Your task to perform on an android device: stop showing notifications on the lock screen Image 0: 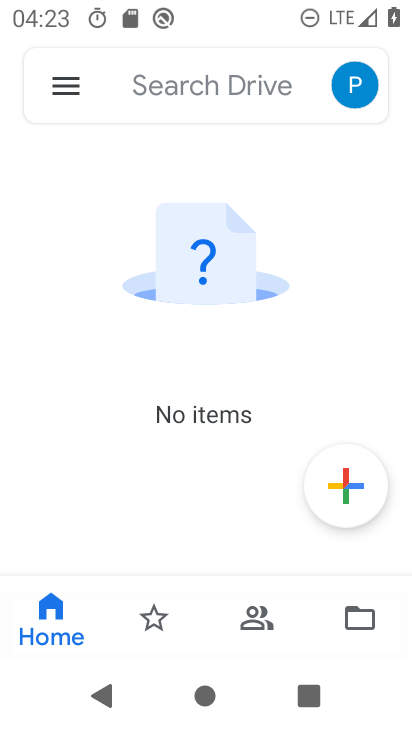
Step 0: press back button
Your task to perform on an android device: stop showing notifications on the lock screen Image 1: 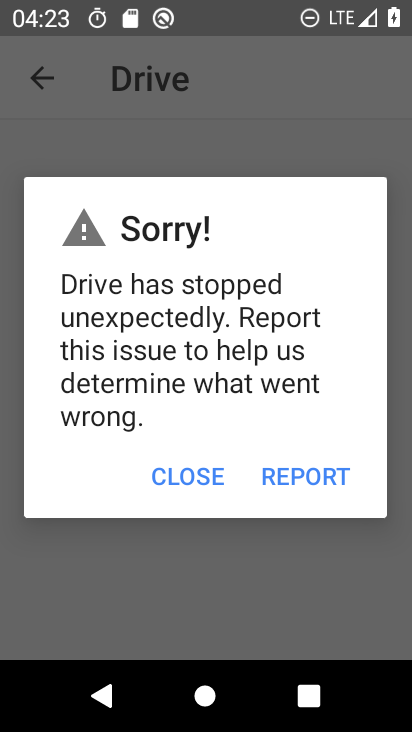
Step 1: click (176, 472)
Your task to perform on an android device: stop showing notifications on the lock screen Image 2: 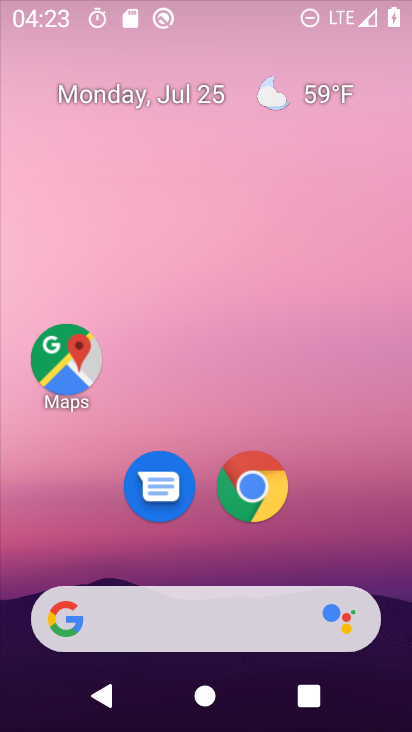
Step 2: drag from (170, 519) to (297, 7)
Your task to perform on an android device: stop showing notifications on the lock screen Image 3: 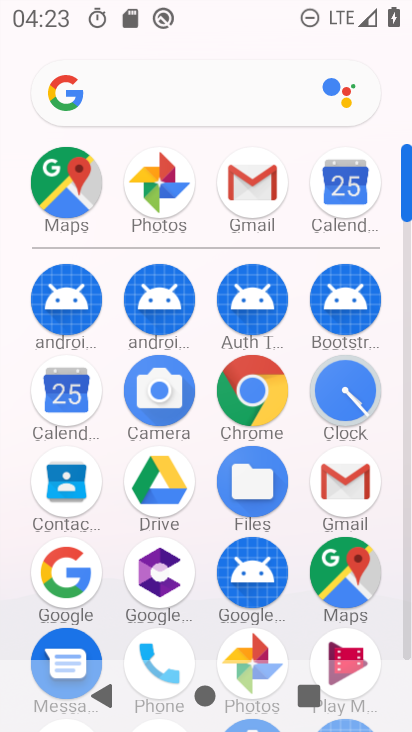
Step 3: drag from (181, 576) to (310, 34)
Your task to perform on an android device: stop showing notifications on the lock screen Image 4: 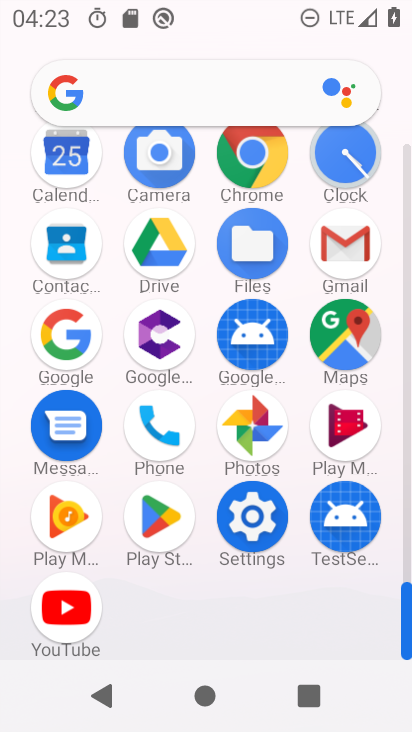
Step 4: click (250, 521)
Your task to perform on an android device: stop showing notifications on the lock screen Image 5: 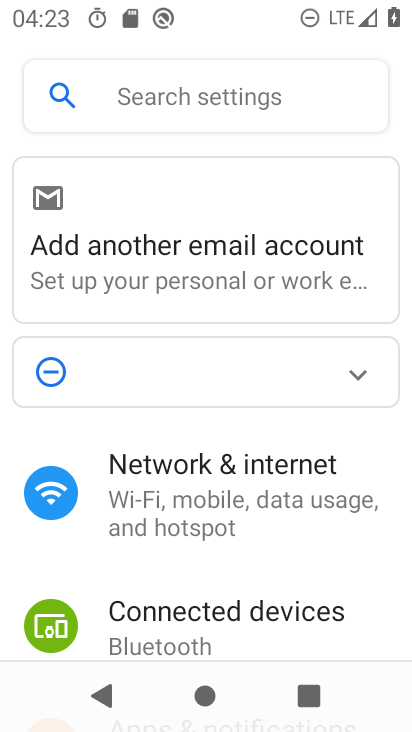
Step 5: drag from (162, 602) to (210, 336)
Your task to perform on an android device: stop showing notifications on the lock screen Image 6: 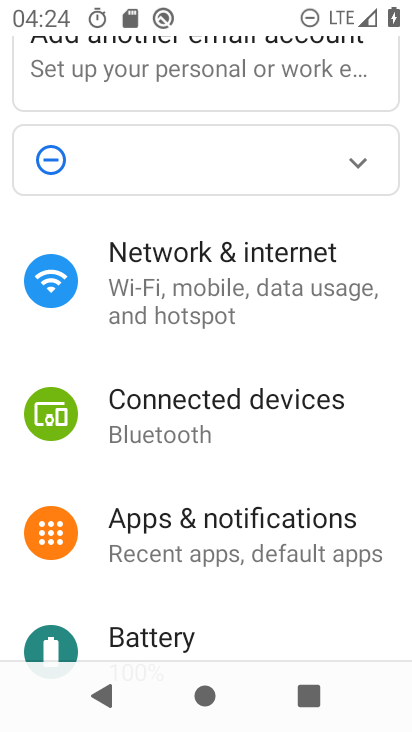
Step 6: drag from (182, 565) to (297, 432)
Your task to perform on an android device: stop showing notifications on the lock screen Image 7: 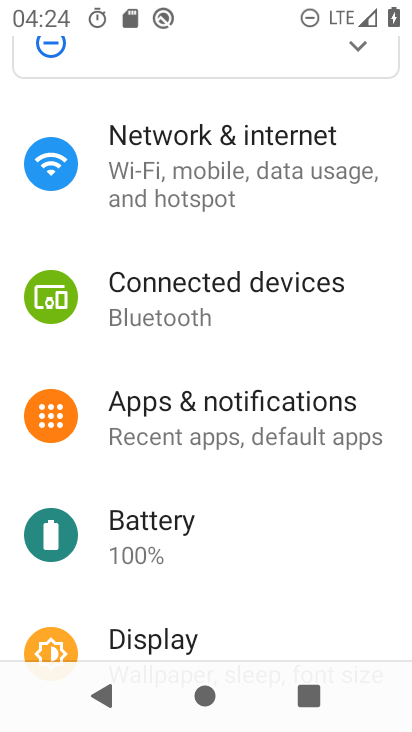
Step 7: click (227, 402)
Your task to perform on an android device: stop showing notifications on the lock screen Image 8: 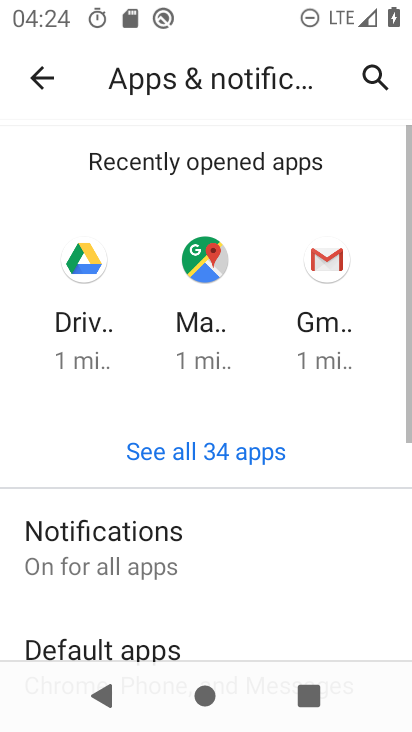
Step 8: drag from (159, 537) to (279, 166)
Your task to perform on an android device: stop showing notifications on the lock screen Image 9: 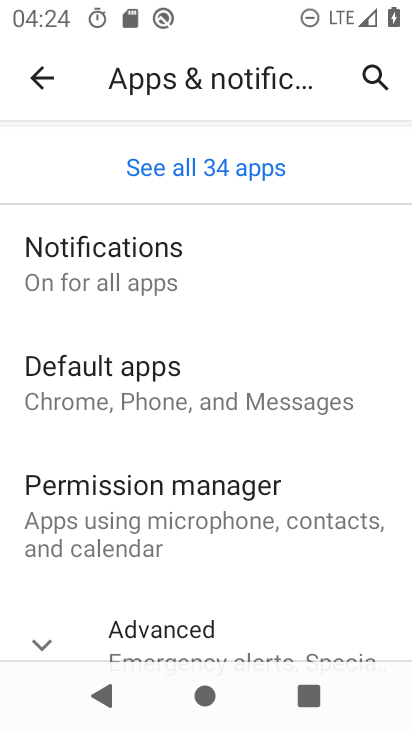
Step 9: click (113, 243)
Your task to perform on an android device: stop showing notifications on the lock screen Image 10: 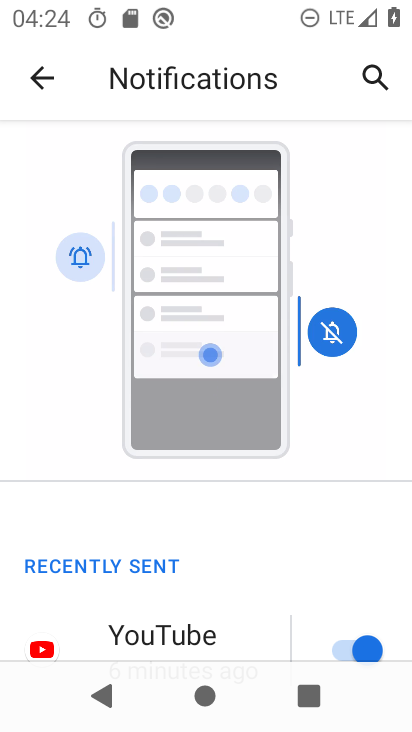
Step 10: drag from (163, 596) to (289, 84)
Your task to perform on an android device: stop showing notifications on the lock screen Image 11: 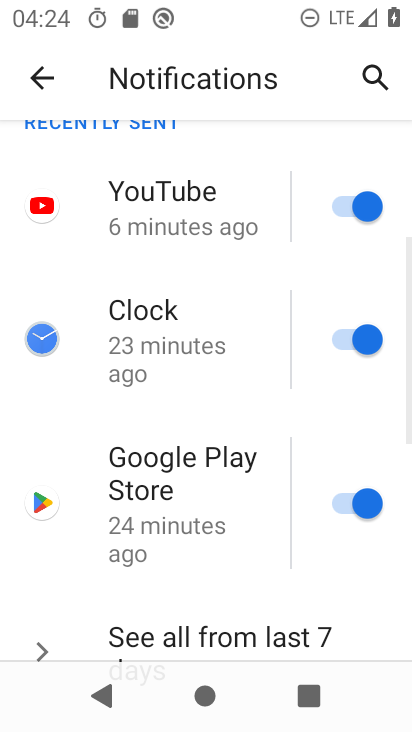
Step 11: drag from (173, 564) to (295, 82)
Your task to perform on an android device: stop showing notifications on the lock screen Image 12: 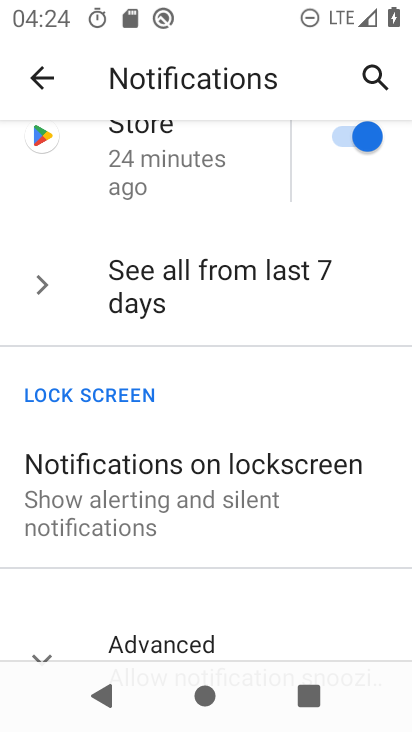
Step 12: click (178, 496)
Your task to perform on an android device: stop showing notifications on the lock screen Image 13: 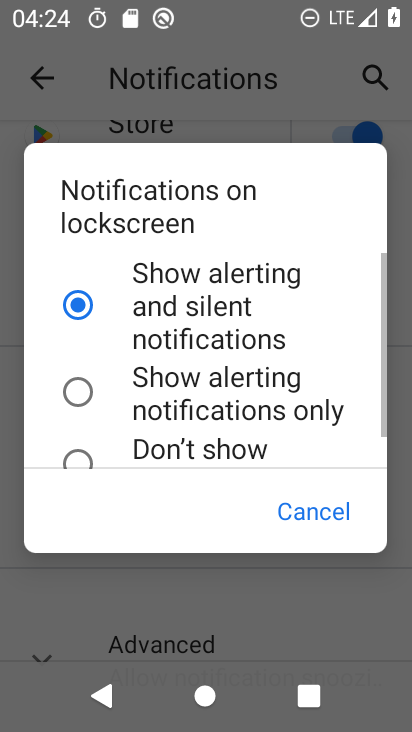
Step 13: drag from (171, 443) to (271, 124)
Your task to perform on an android device: stop showing notifications on the lock screen Image 14: 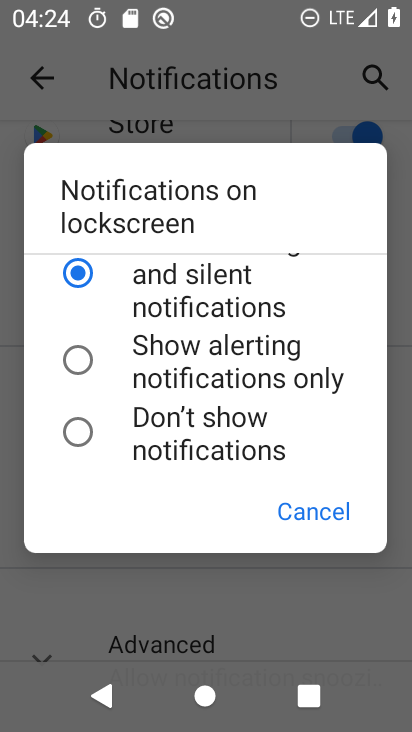
Step 14: click (84, 432)
Your task to perform on an android device: stop showing notifications on the lock screen Image 15: 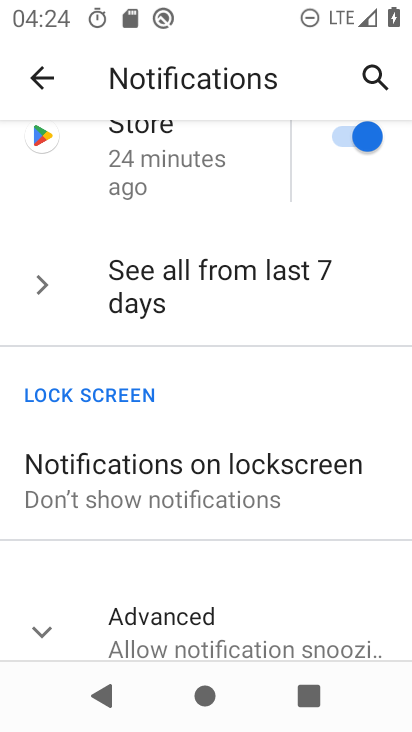
Step 15: task complete